Your task to perform on an android device: Is it going to rain today? Image 0: 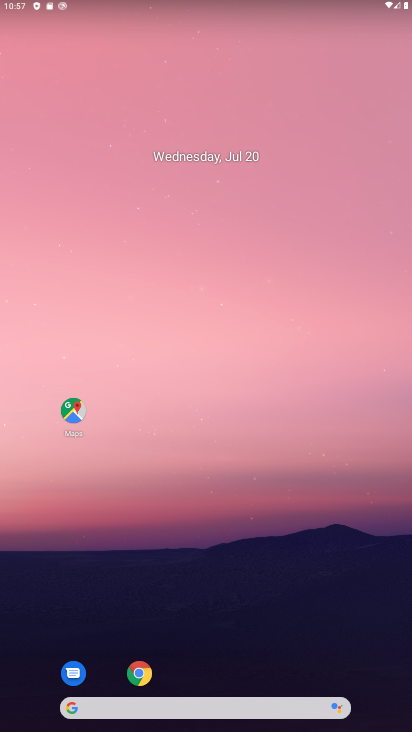
Step 0: drag from (181, 654) to (280, 13)
Your task to perform on an android device: Is it going to rain today? Image 1: 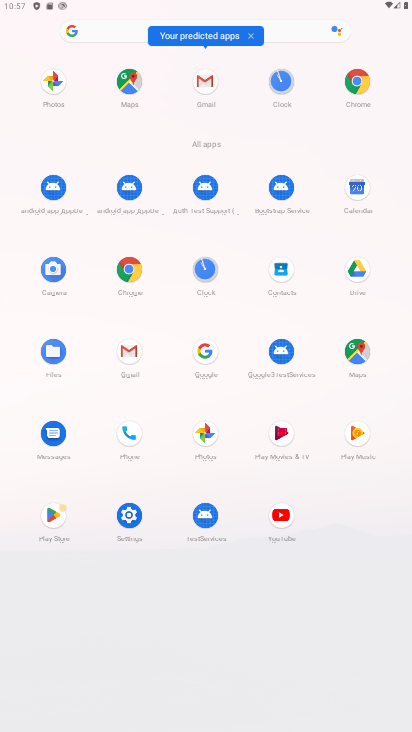
Step 1: click (129, 520)
Your task to perform on an android device: Is it going to rain today? Image 2: 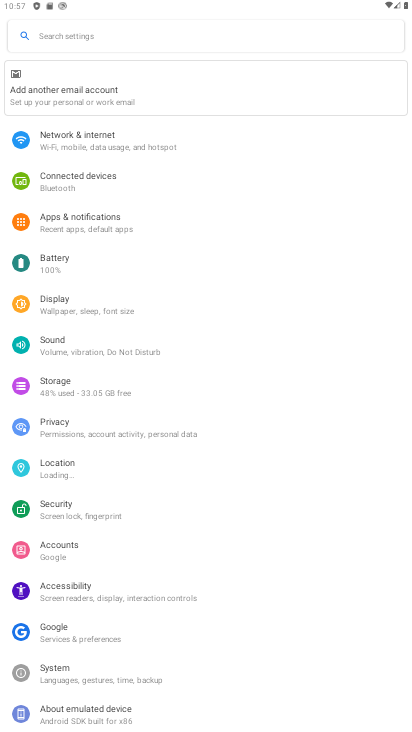
Step 2: click (67, 309)
Your task to perform on an android device: Is it going to rain today? Image 3: 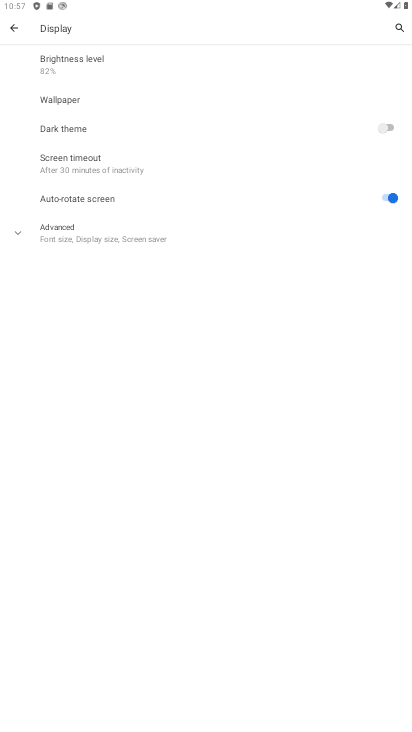
Step 3: click (104, 241)
Your task to perform on an android device: Is it going to rain today? Image 4: 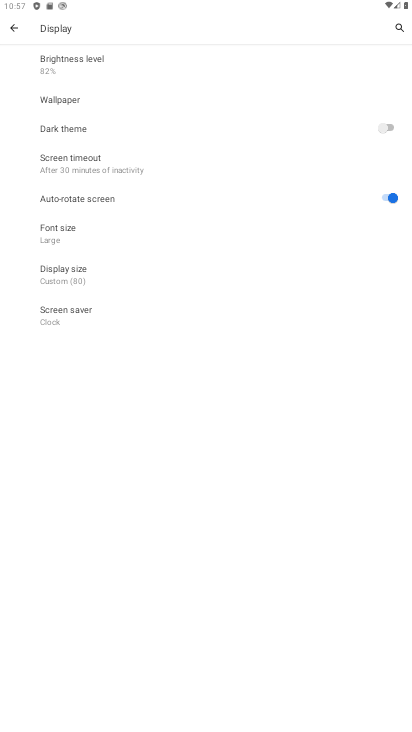
Step 4: click (91, 271)
Your task to perform on an android device: Is it going to rain today? Image 5: 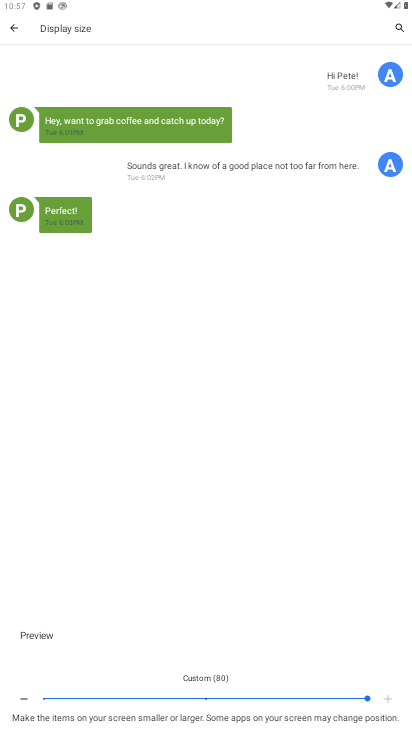
Step 5: click (203, 700)
Your task to perform on an android device: Is it going to rain today? Image 6: 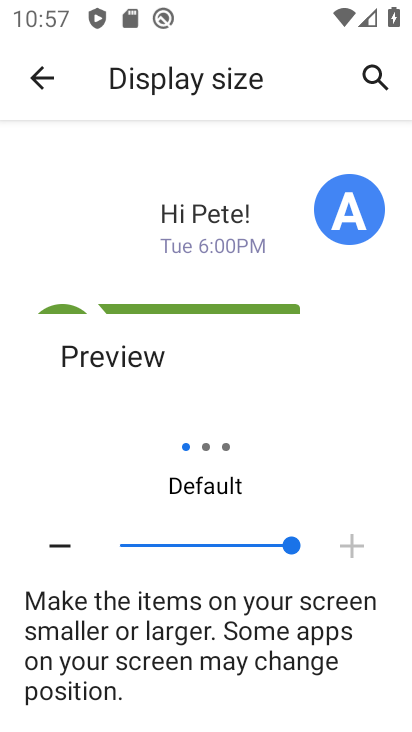
Step 6: click (39, 60)
Your task to perform on an android device: Is it going to rain today? Image 7: 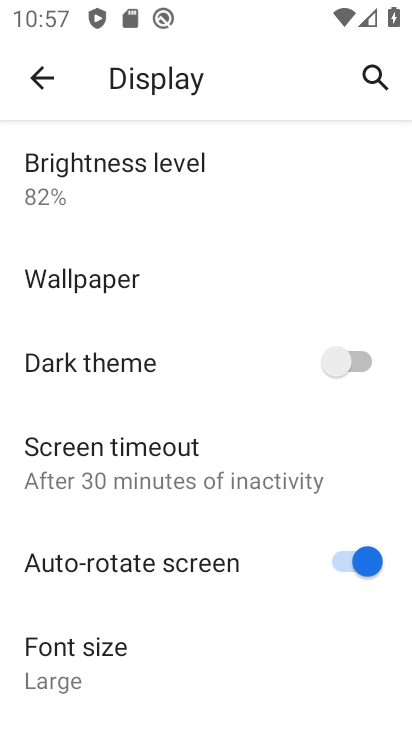
Step 7: press back button
Your task to perform on an android device: Is it going to rain today? Image 8: 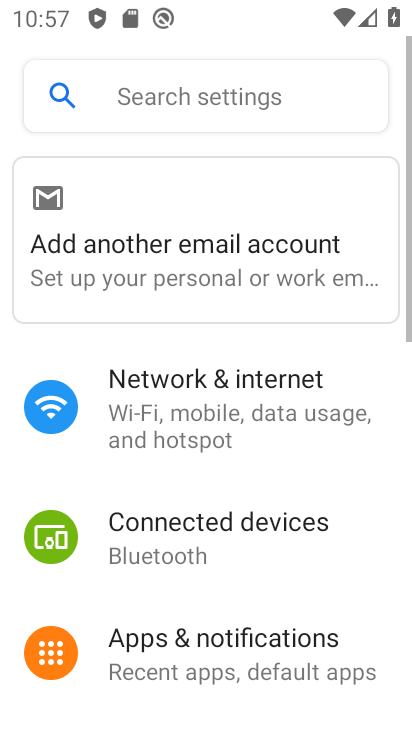
Step 8: press back button
Your task to perform on an android device: Is it going to rain today? Image 9: 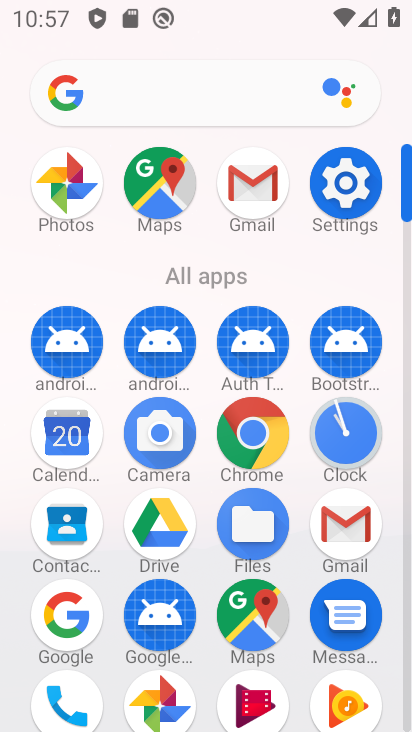
Step 9: click (166, 105)
Your task to perform on an android device: Is it going to rain today? Image 10: 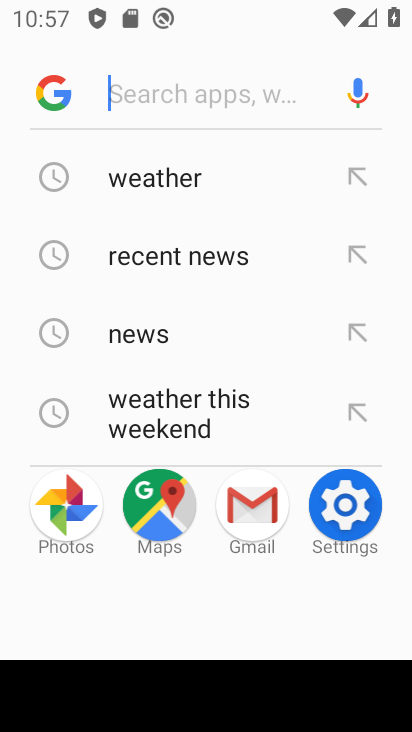
Step 10: type "weather"
Your task to perform on an android device: Is it going to rain today? Image 11: 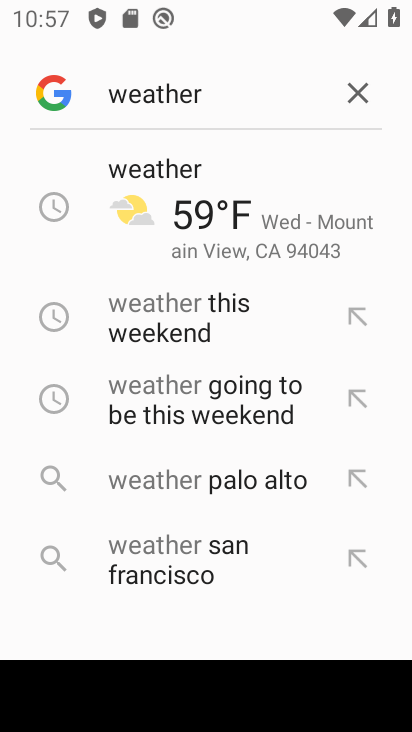
Step 11: click (191, 213)
Your task to perform on an android device: Is it going to rain today? Image 12: 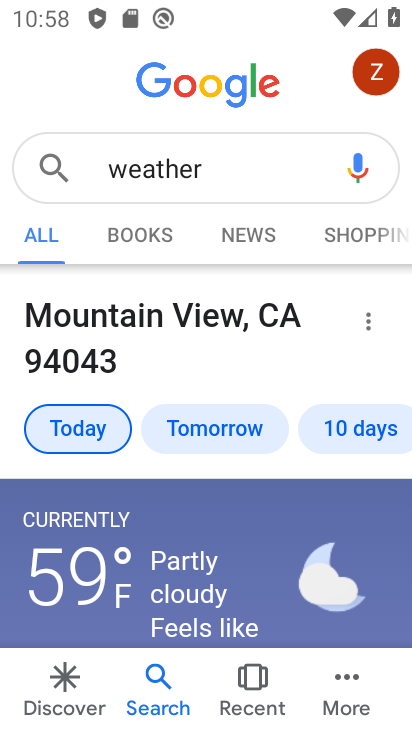
Step 12: task complete